Your task to perform on an android device: turn pop-ups on in chrome Image 0: 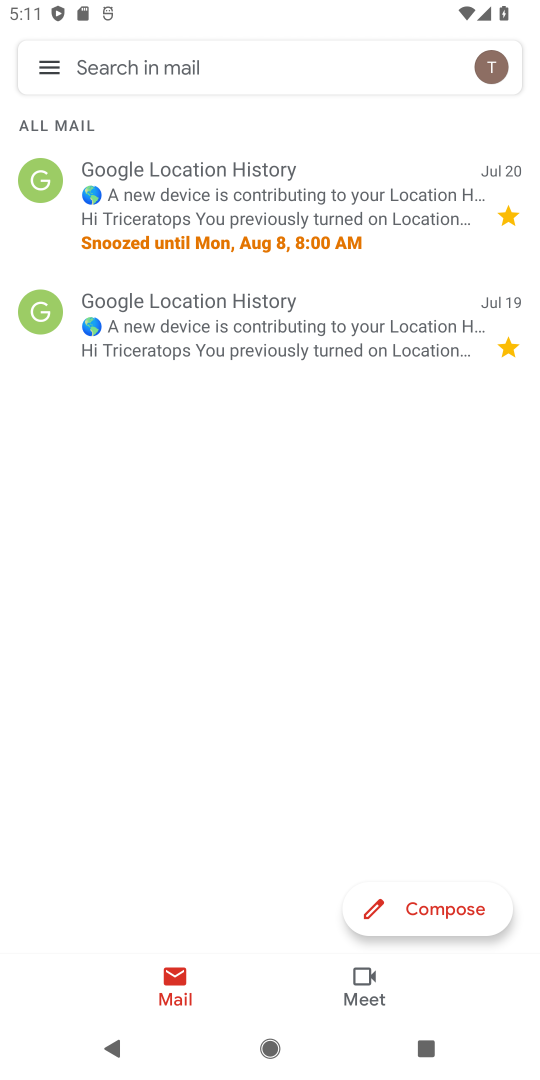
Step 0: press home button
Your task to perform on an android device: turn pop-ups on in chrome Image 1: 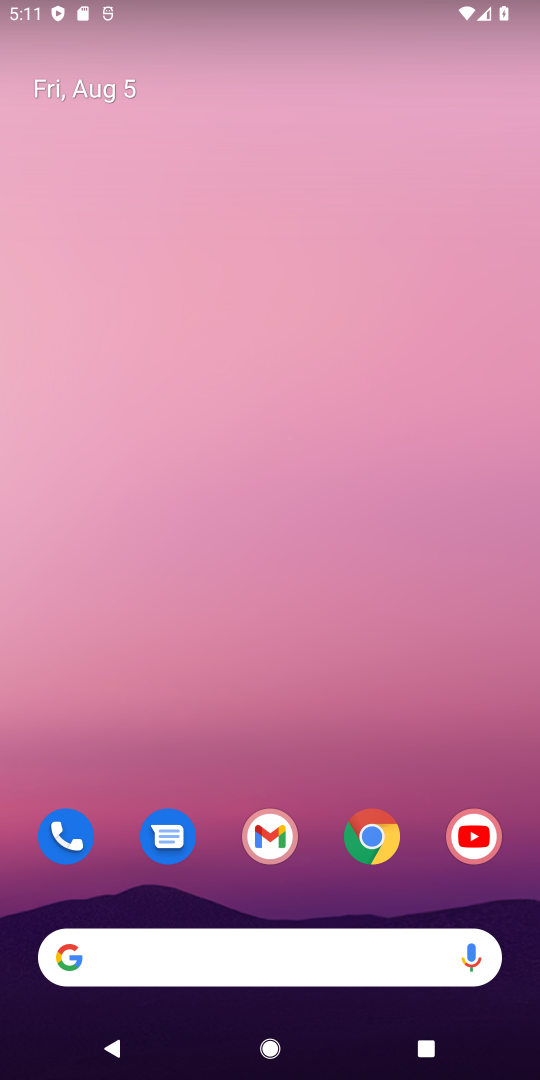
Step 1: click (369, 827)
Your task to perform on an android device: turn pop-ups on in chrome Image 2: 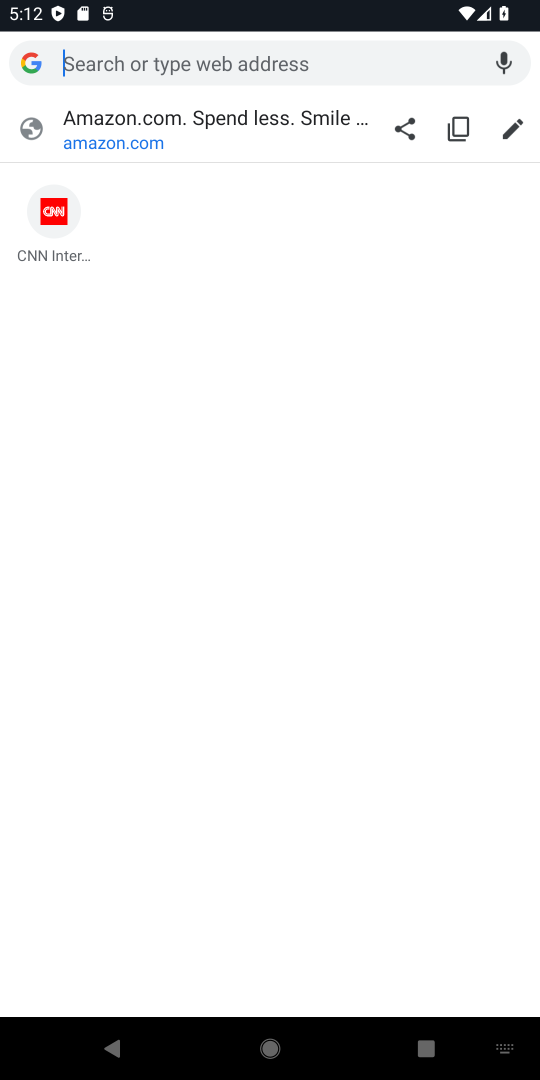
Step 2: press home button
Your task to perform on an android device: turn pop-ups on in chrome Image 3: 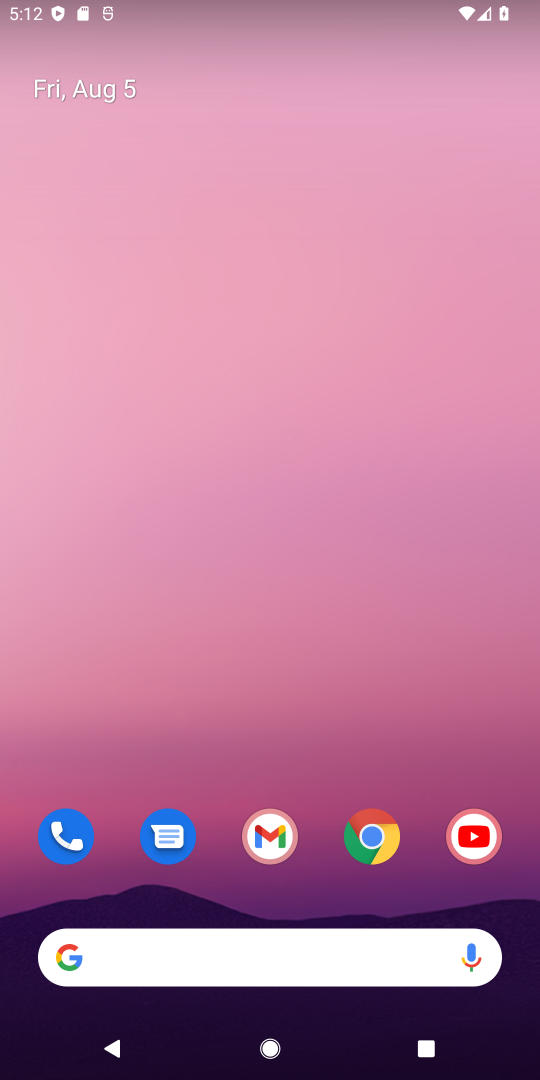
Step 3: click (385, 826)
Your task to perform on an android device: turn pop-ups on in chrome Image 4: 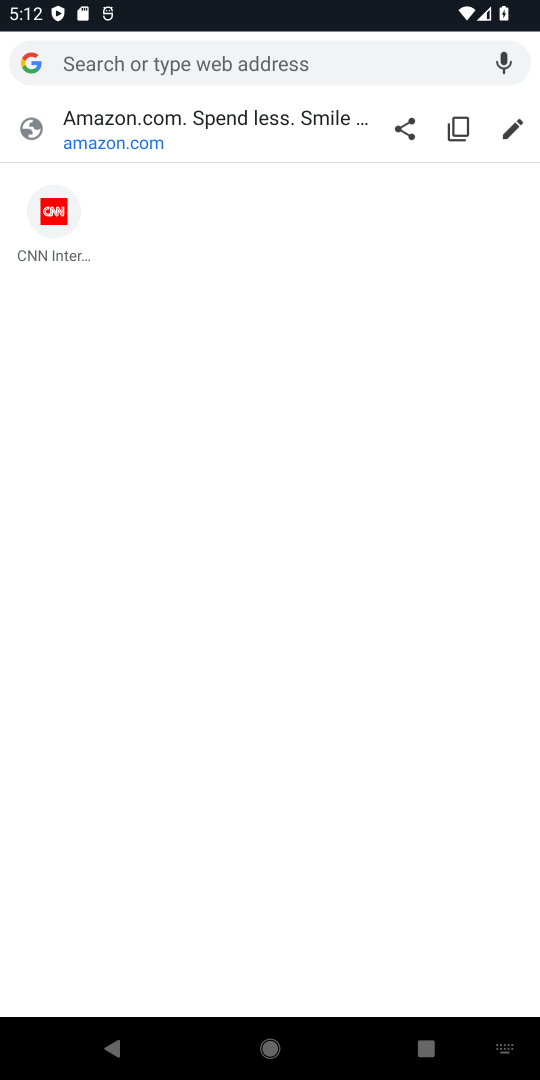
Step 4: press back button
Your task to perform on an android device: turn pop-ups on in chrome Image 5: 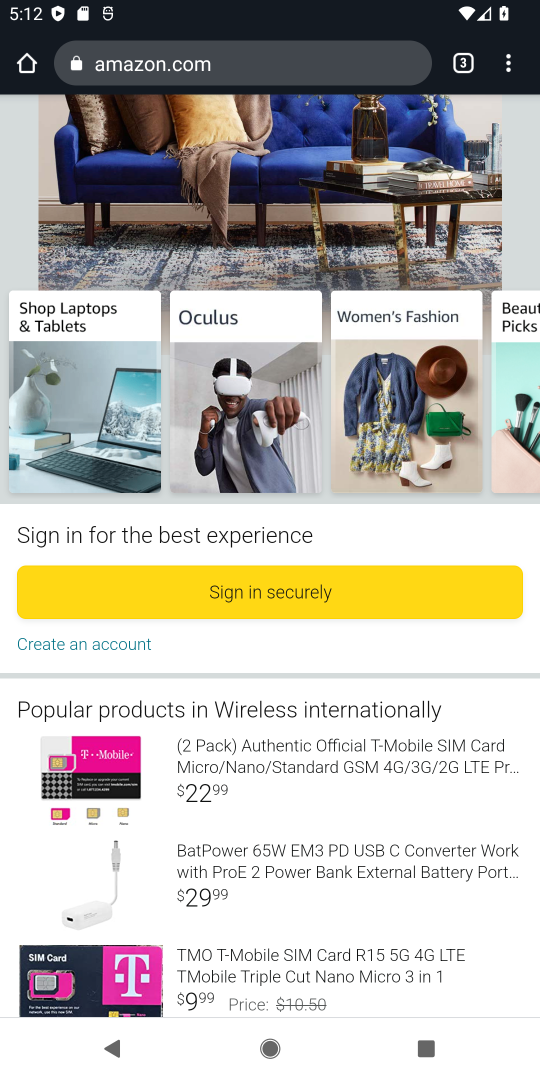
Step 5: click (509, 58)
Your task to perform on an android device: turn pop-ups on in chrome Image 6: 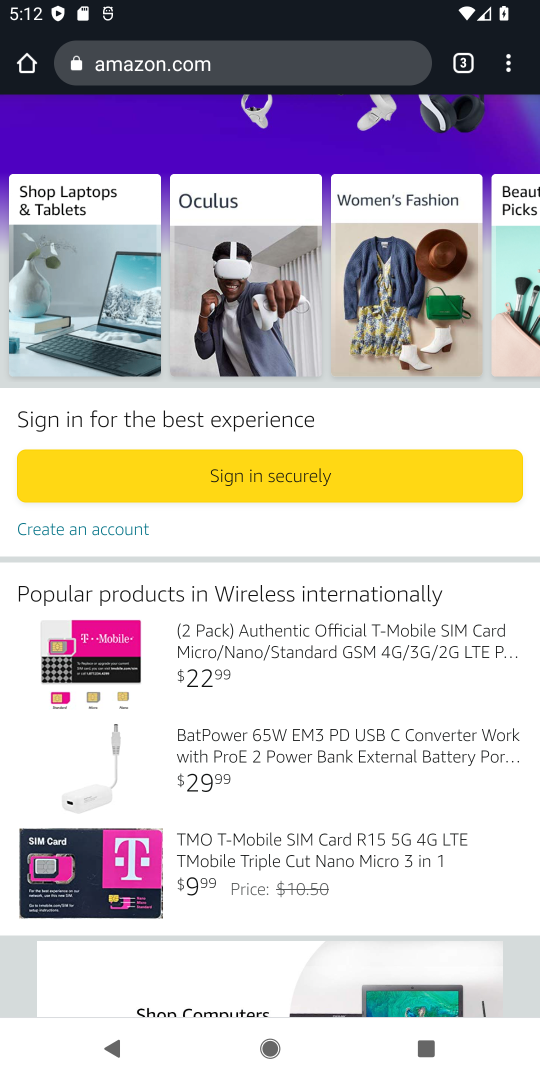
Step 6: click (508, 61)
Your task to perform on an android device: turn pop-ups on in chrome Image 7: 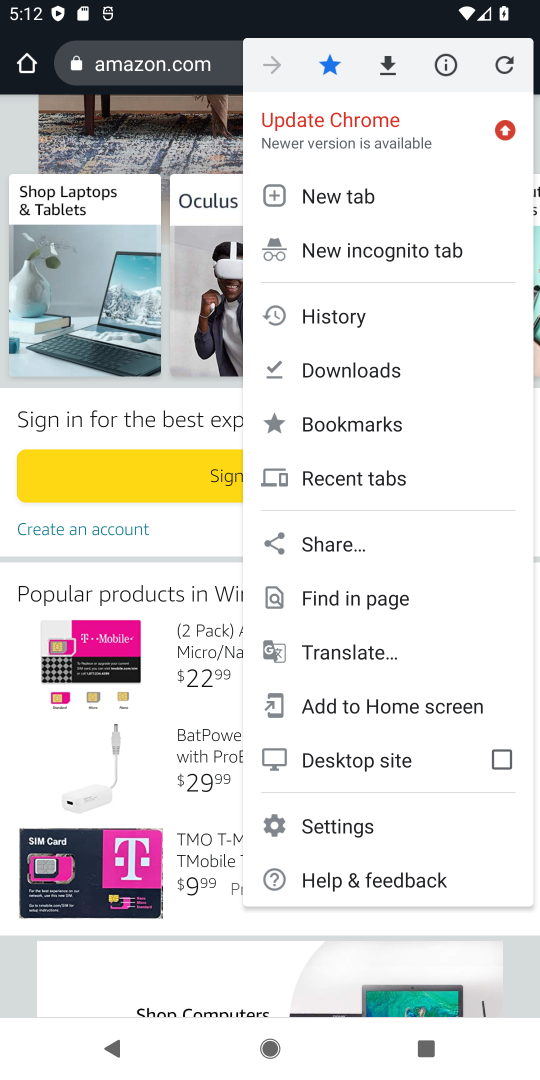
Step 7: click (356, 820)
Your task to perform on an android device: turn pop-ups on in chrome Image 8: 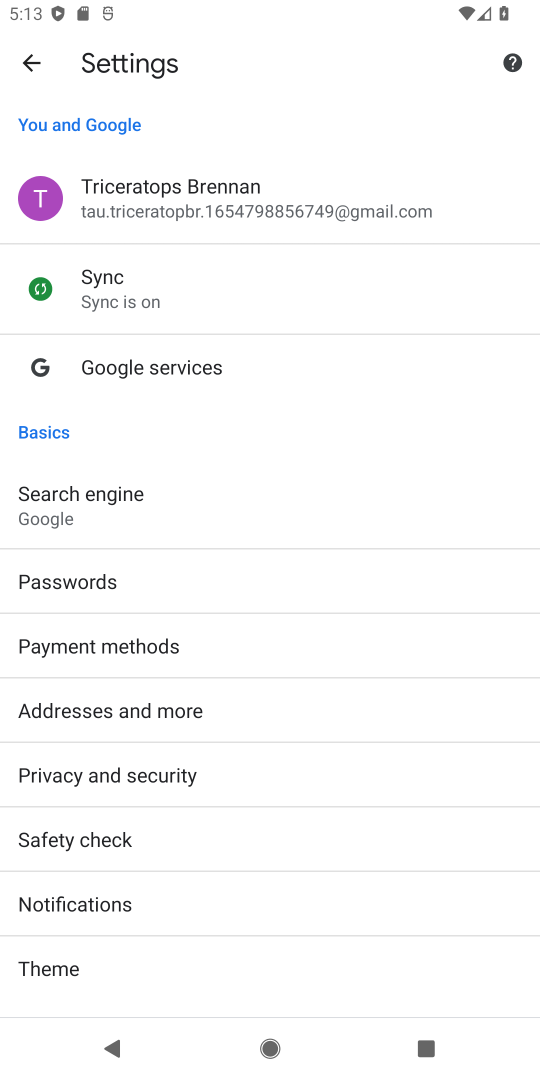
Step 8: drag from (160, 920) to (252, 206)
Your task to perform on an android device: turn pop-ups on in chrome Image 9: 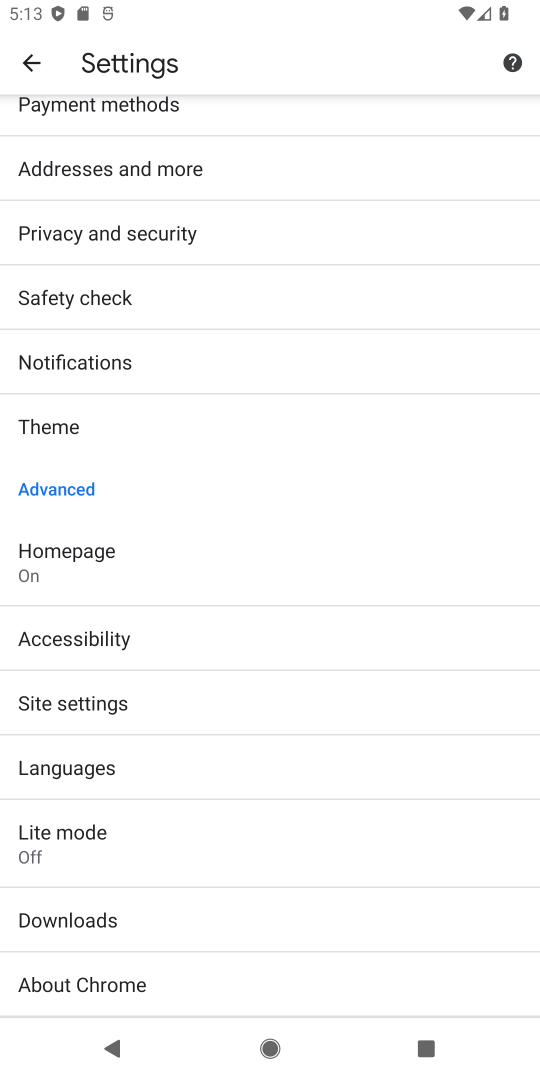
Step 9: click (149, 697)
Your task to perform on an android device: turn pop-ups on in chrome Image 10: 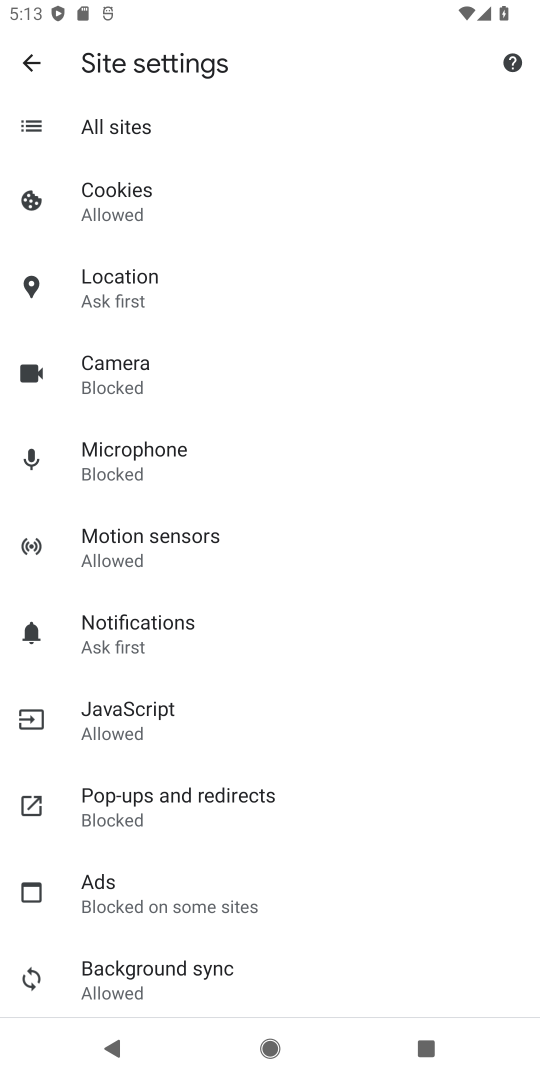
Step 10: click (159, 801)
Your task to perform on an android device: turn pop-ups on in chrome Image 11: 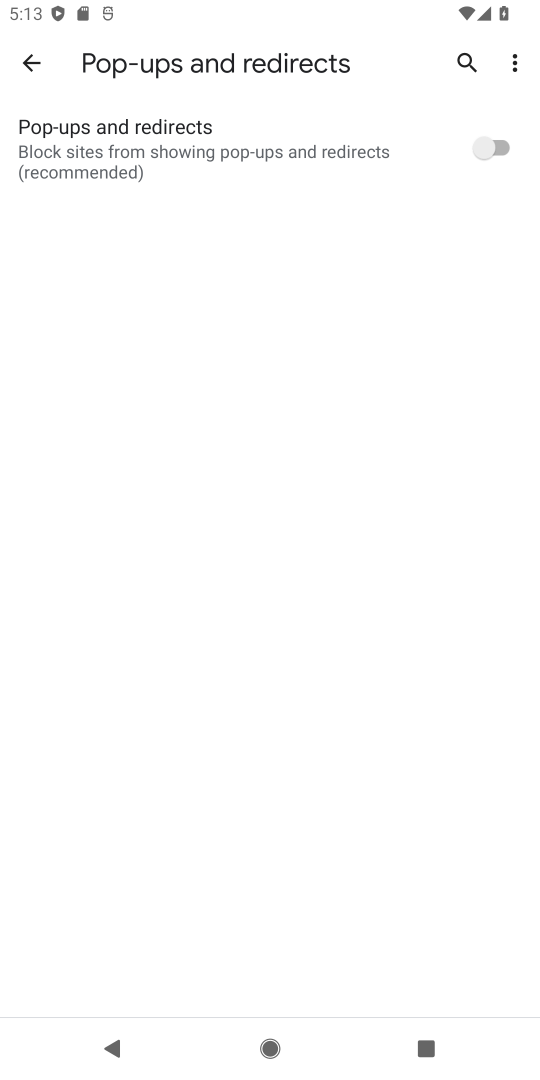
Step 11: click (496, 147)
Your task to perform on an android device: turn pop-ups on in chrome Image 12: 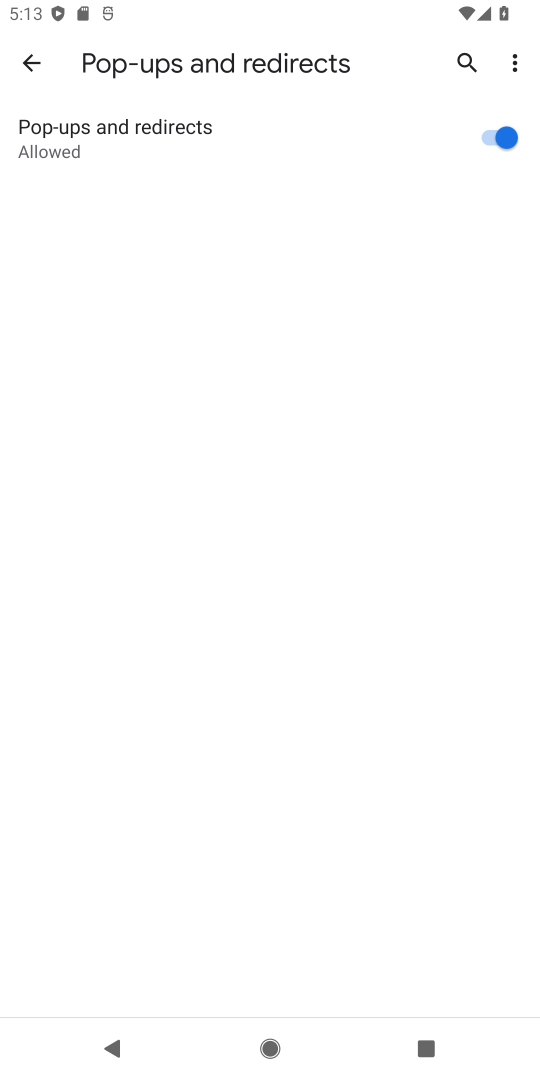
Step 12: task complete